Your task to perform on an android device: turn on translation in the chrome app Image 0: 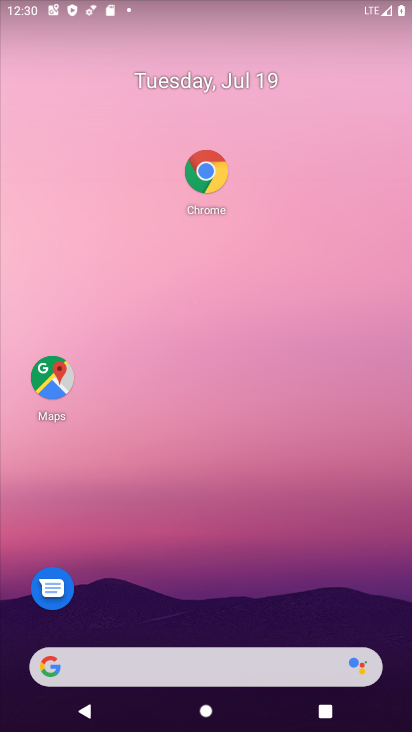
Step 0: click (211, 170)
Your task to perform on an android device: turn on translation in the chrome app Image 1: 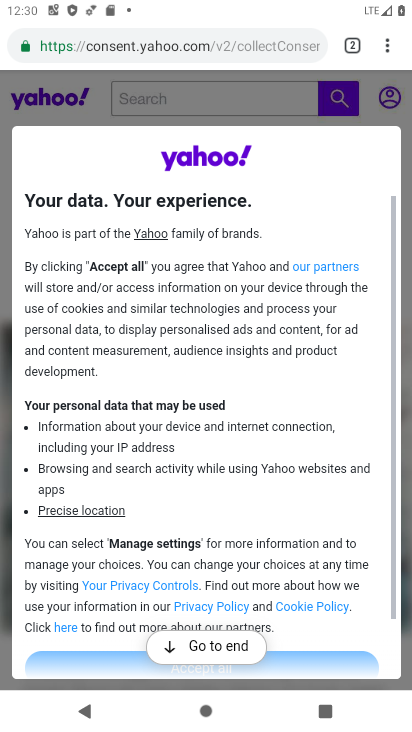
Step 1: click (391, 45)
Your task to perform on an android device: turn on translation in the chrome app Image 2: 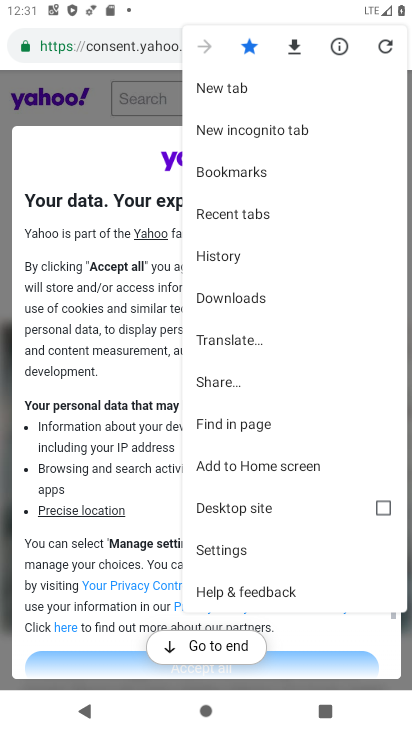
Step 2: click (212, 547)
Your task to perform on an android device: turn on translation in the chrome app Image 3: 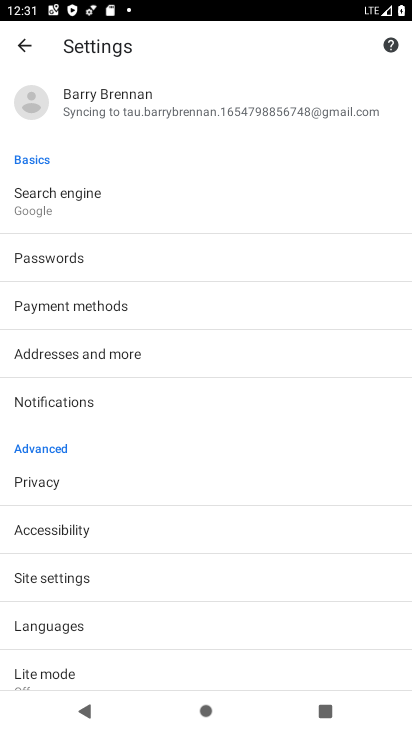
Step 3: click (99, 625)
Your task to perform on an android device: turn on translation in the chrome app Image 4: 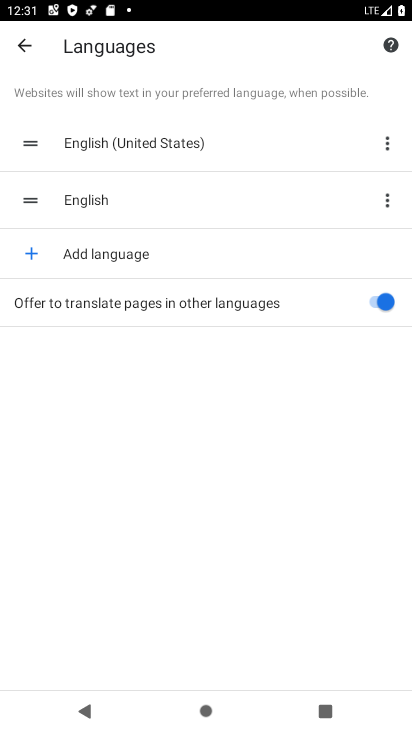
Step 4: task complete